Your task to perform on an android device: Open the phone app and click the voicemail tab. Image 0: 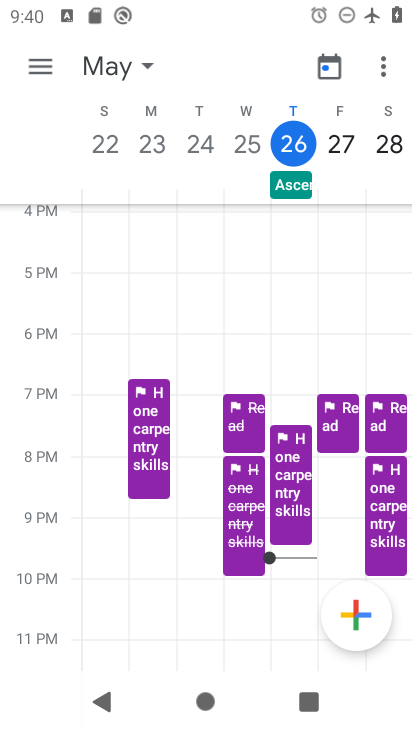
Step 0: press home button
Your task to perform on an android device: Open the phone app and click the voicemail tab. Image 1: 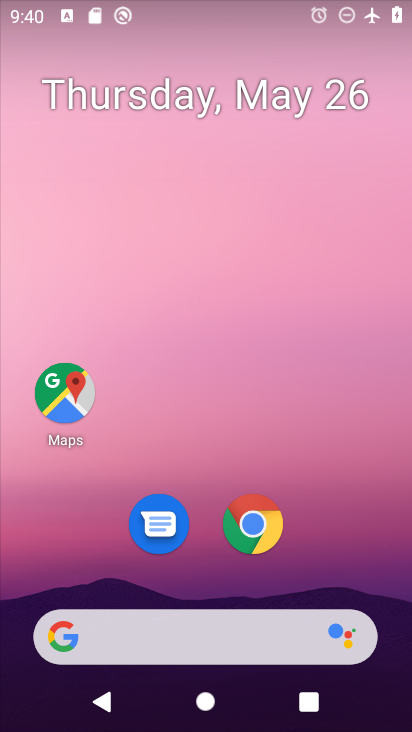
Step 1: drag from (214, 468) to (231, 21)
Your task to perform on an android device: Open the phone app and click the voicemail tab. Image 2: 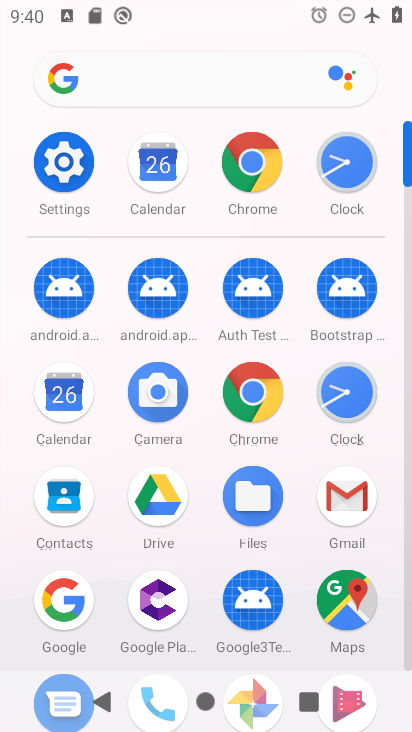
Step 2: drag from (186, 472) to (228, 168)
Your task to perform on an android device: Open the phone app and click the voicemail tab. Image 3: 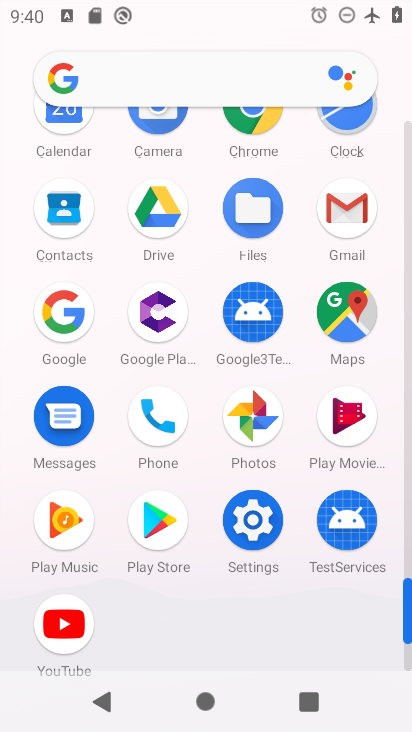
Step 3: click (166, 407)
Your task to perform on an android device: Open the phone app and click the voicemail tab. Image 4: 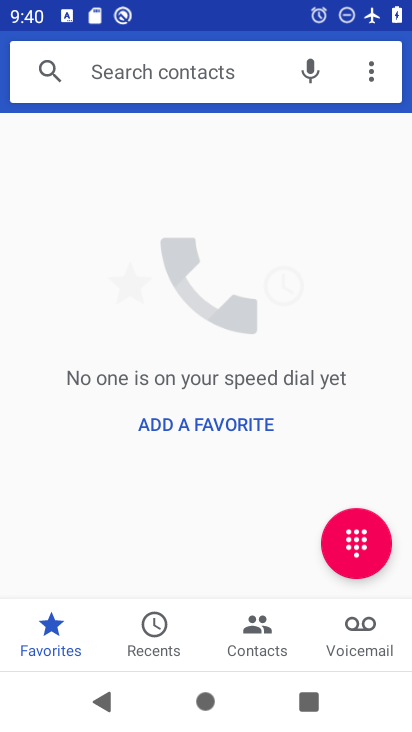
Step 4: click (363, 639)
Your task to perform on an android device: Open the phone app and click the voicemail tab. Image 5: 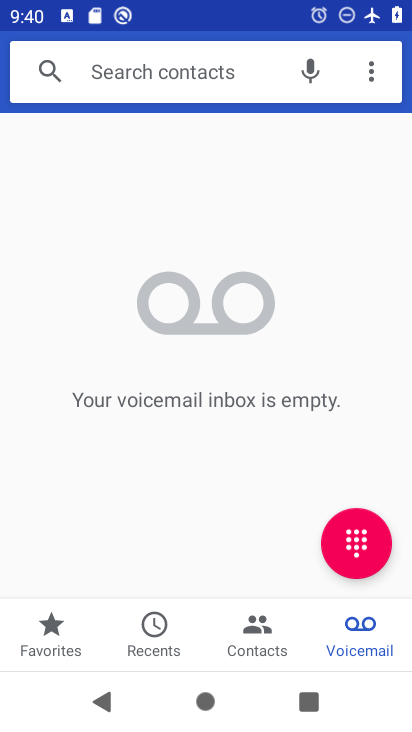
Step 5: task complete